Your task to perform on an android device: Add "lenovo thinkpad" to the cart on newegg.com Image 0: 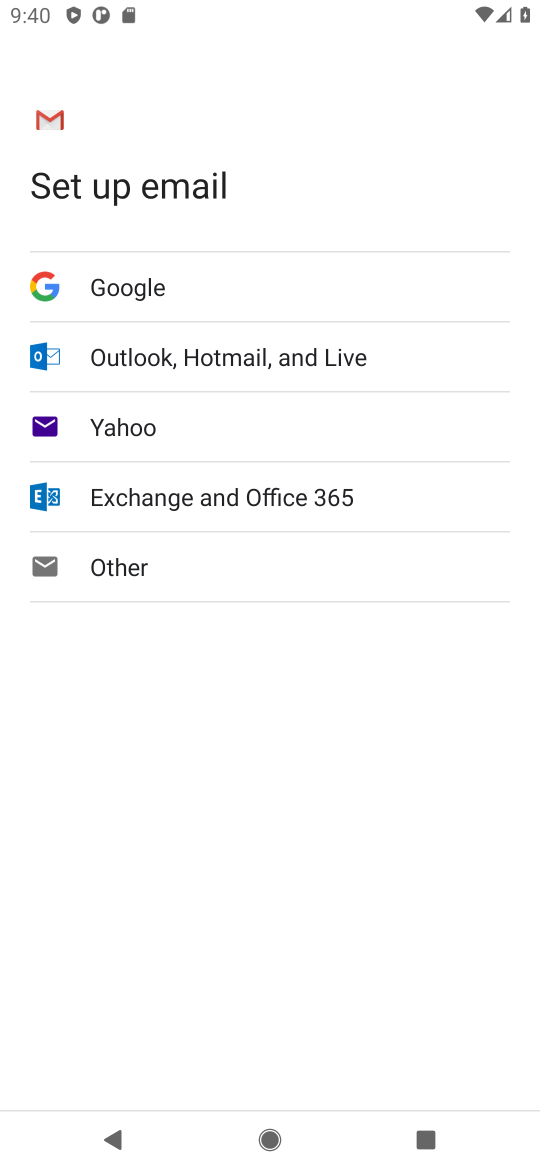
Step 0: press home button
Your task to perform on an android device: Add "lenovo thinkpad" to the cart on newegg.com Image 1: 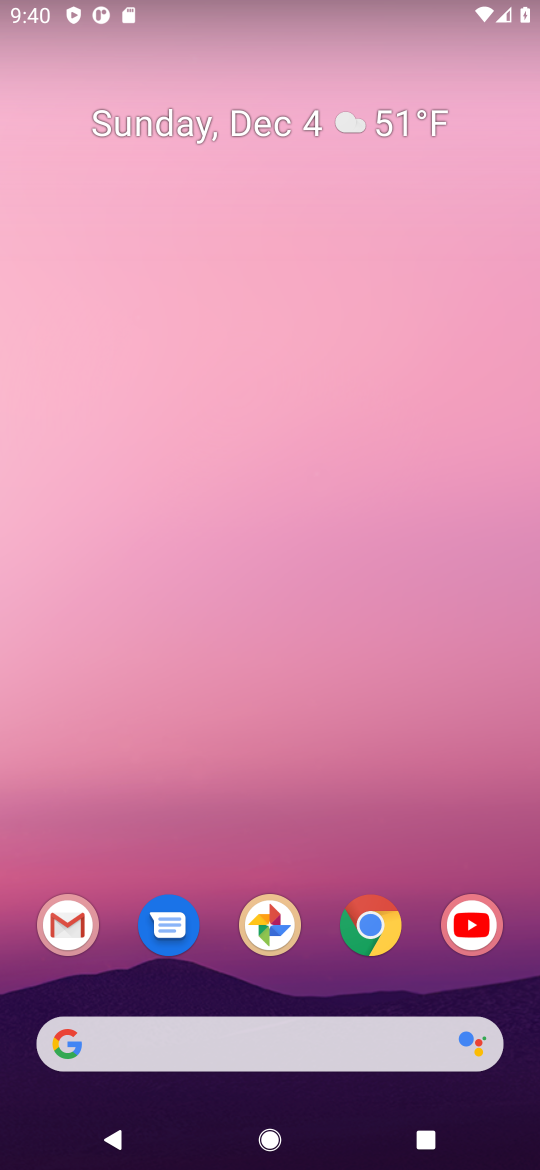
Step 1: drag from (198, 1058) to (203, 465)
Your task to perform on an android device: Add "lenovo thinkpad" to the cart on newegg.com Image 2: 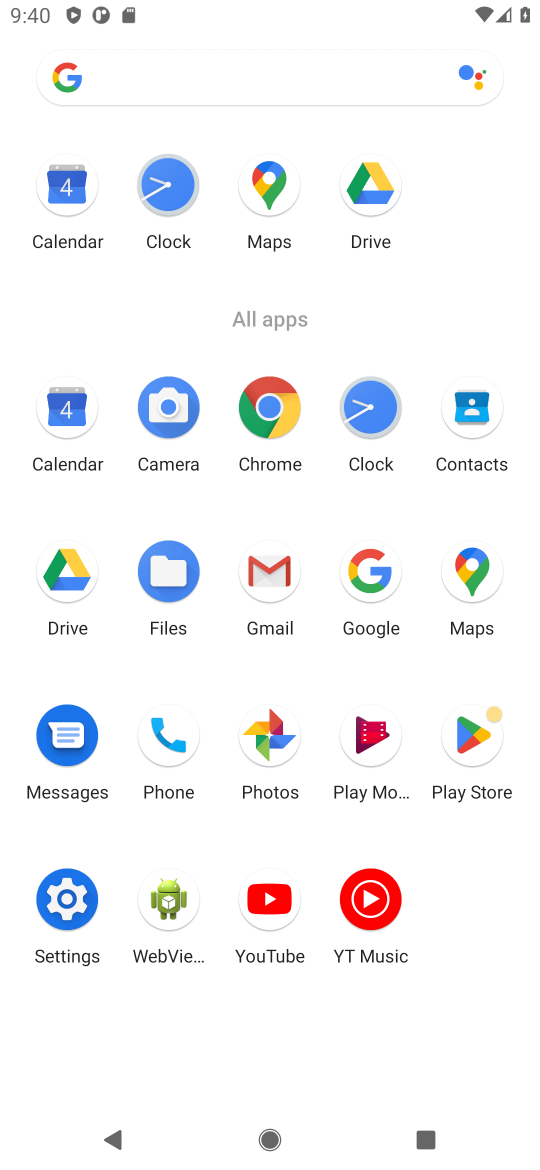
Step 2: click (375, 578)
Your task to perform on an android device: Add "lenovo thinkpad" to the cart on newegg.com Image 3: 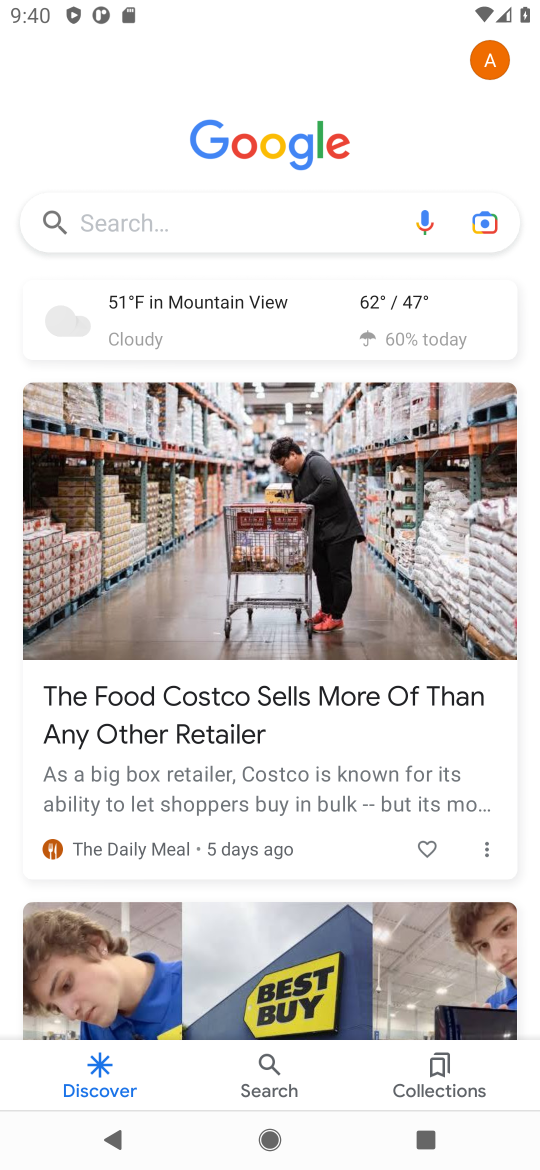
Step 3: click (171, 223)
Your task to perform on an android device: Add "lenovo thinkpad" to the cart on newegg.com Image 4: 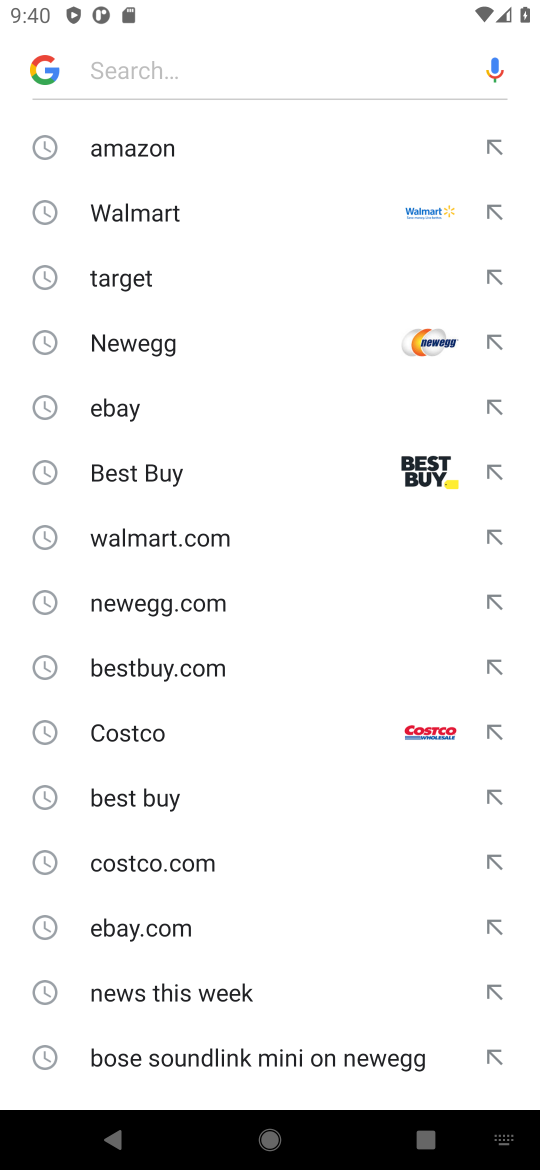
Step 4: click (158, 614)
Your task to perform on an android device: Add "lenovo thinkpad" to the cart on newegg.com Image 5: 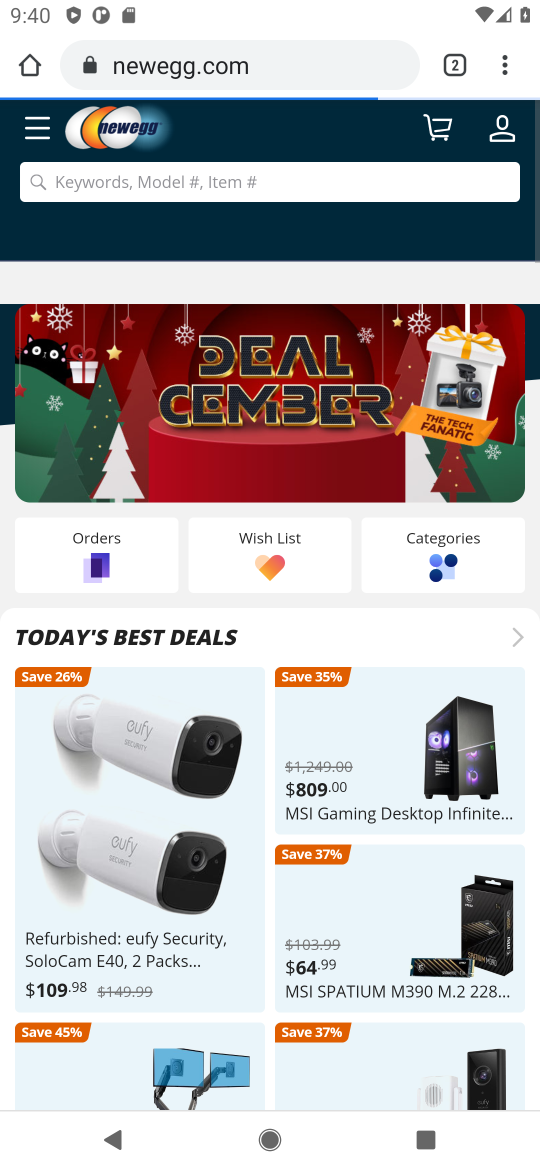
Step 5: click (203, 180)
Your task to perform on an android device: Add "lenovo thinkpad" to the cart on newegg.com Image 6: 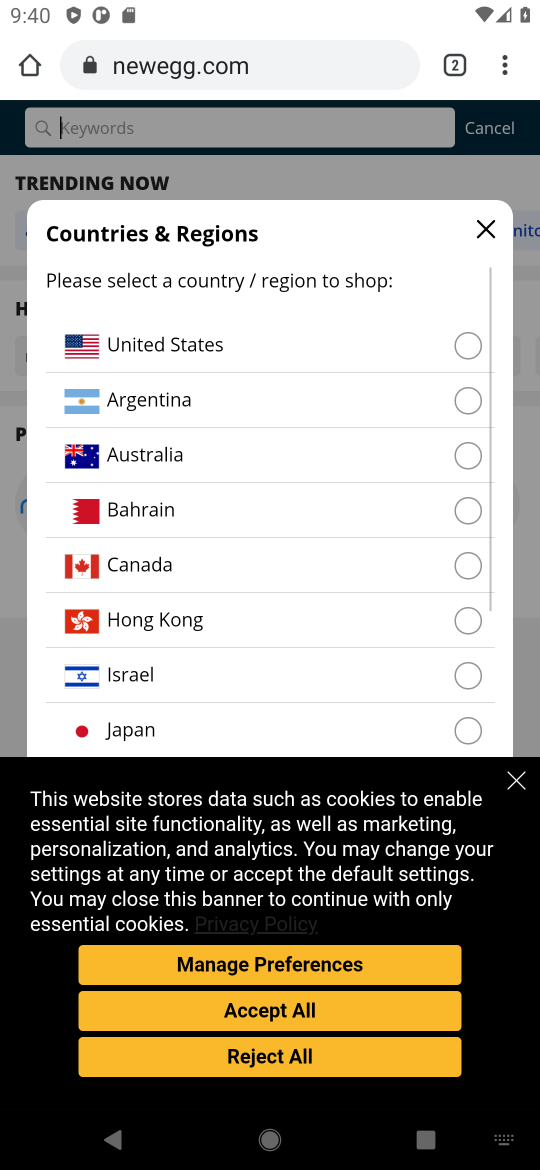
Step 6: click (485, 227)
Your task to perform on an android device: Add "lenovo thinkpad" to the cart on newegg.com Image 7: 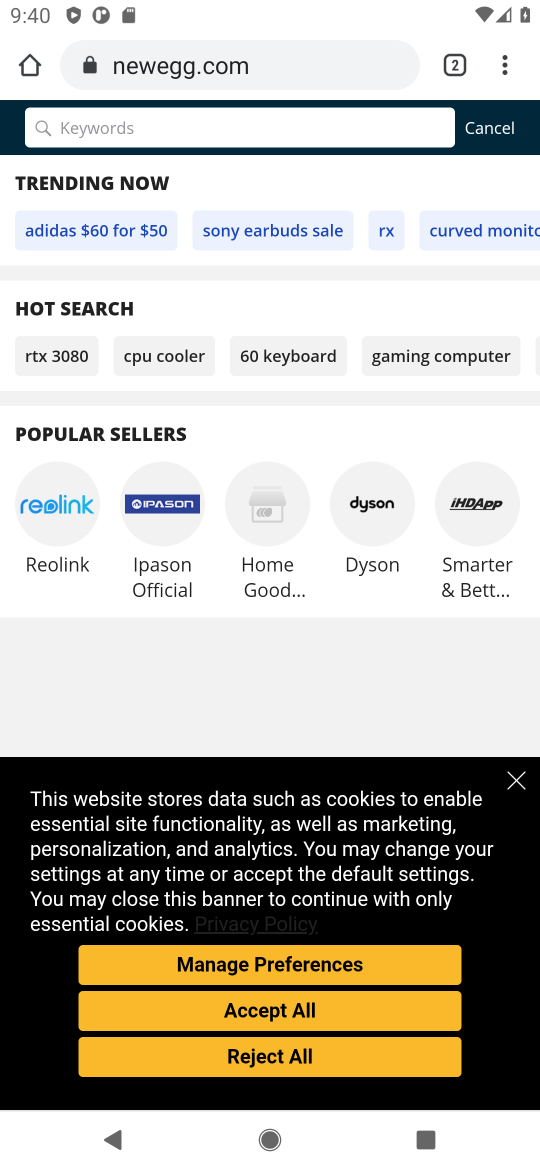
Step 7: type "lenovo thinkpad"
Your task to perform on an android device: Add "lenovo thinkpad" to the cart on newegg.com Image 8: 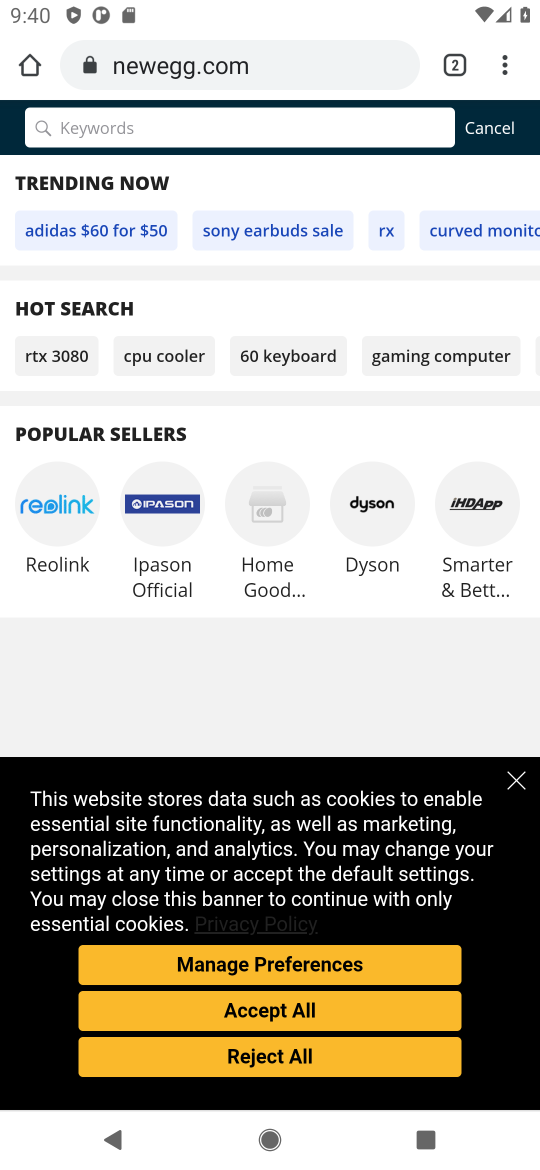
Step 8: click (508, 792)
Your task to perform on an android device: Add "lenovo thinkpad" to the cart on newegg.com Image 9: 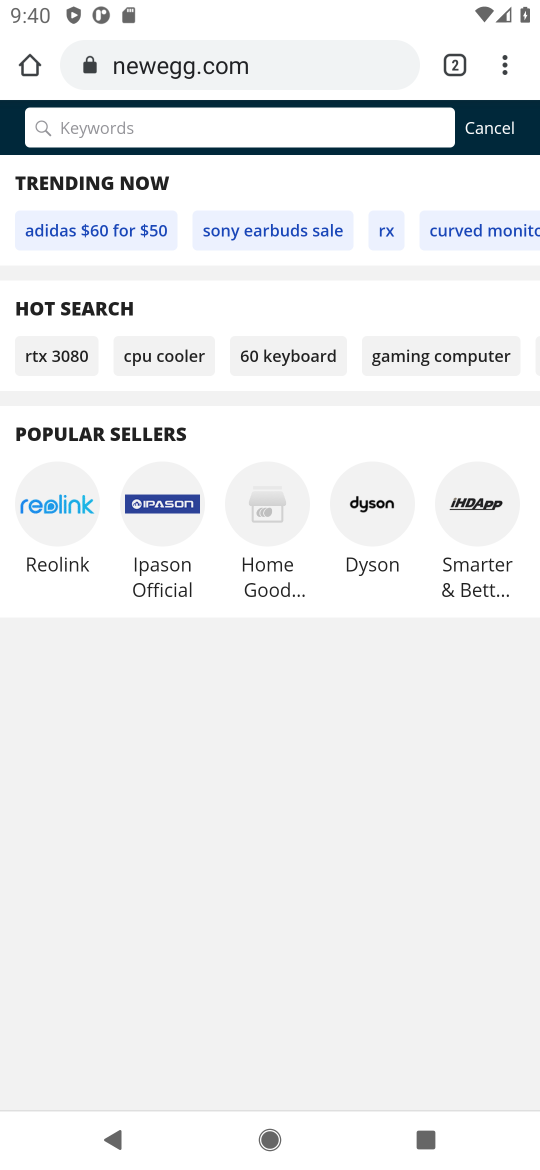
Step 9: click (308, 133)
Your task to perform on an android device: Add "lenovo thinkpad" to the cart on newegg.com Image 10: 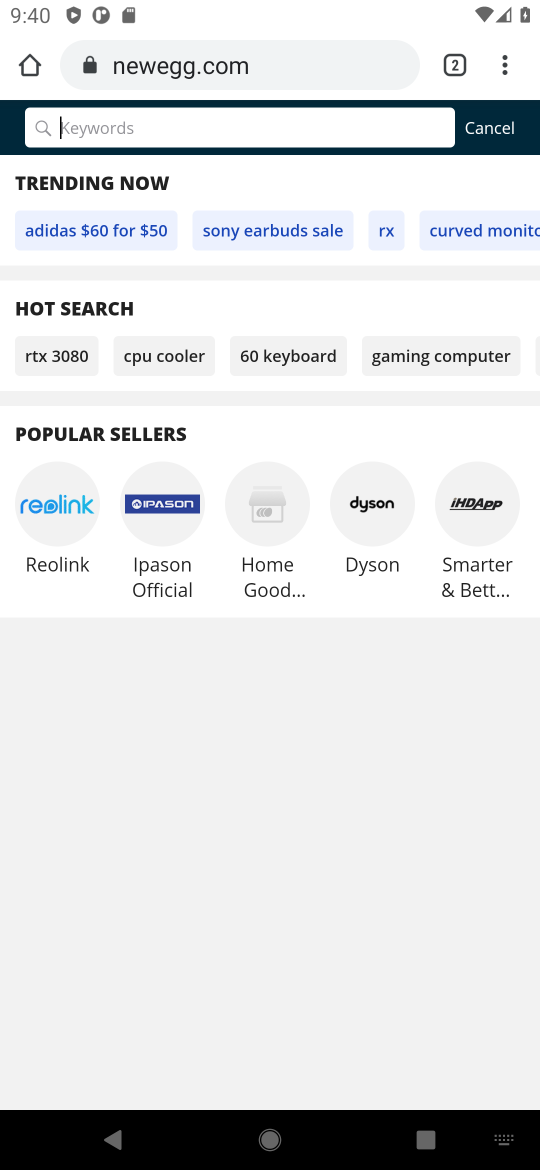
Step 10: type "lenovo thinkpad"
Your task to perform on an android device: Add "lenovo thinkpad" to the cart on newegg.com Image 11: 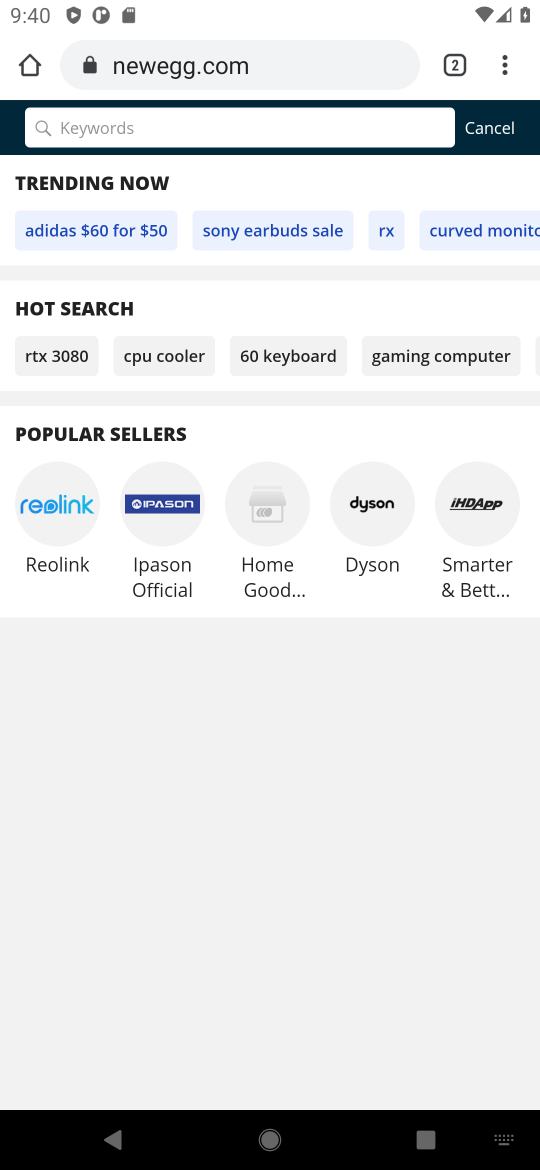
Step 11: click (41, 127)
Your task to perform on an android device: Add "lenovo thinkpad" to the cart on newegg.com Image 12: 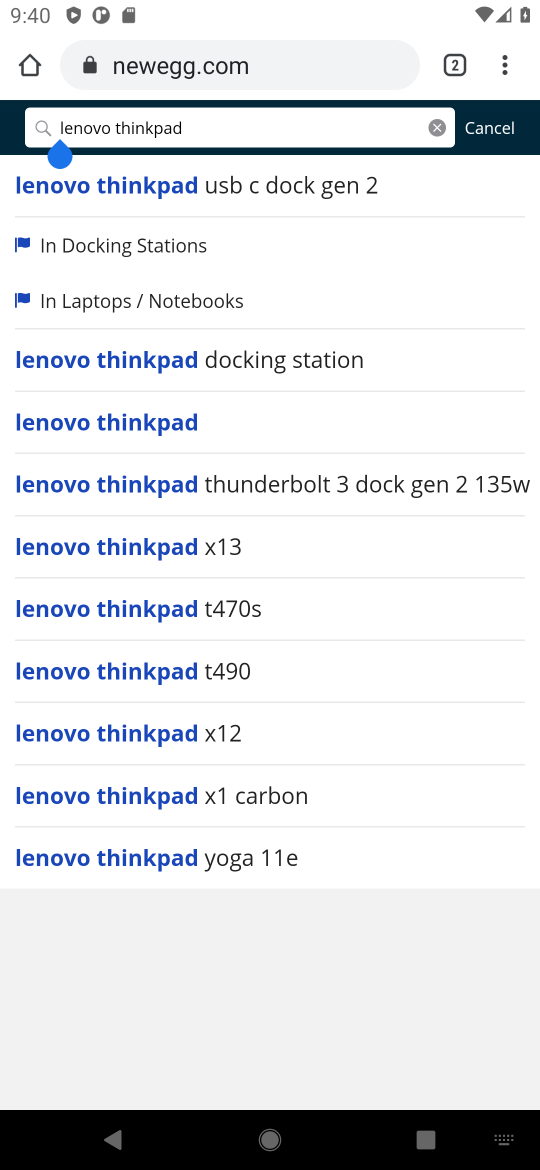
Step 12: click (98, 361)
Your task to perform on an android device: Add "lenovo thinkpad" to the cart on newegg.com Image 13: 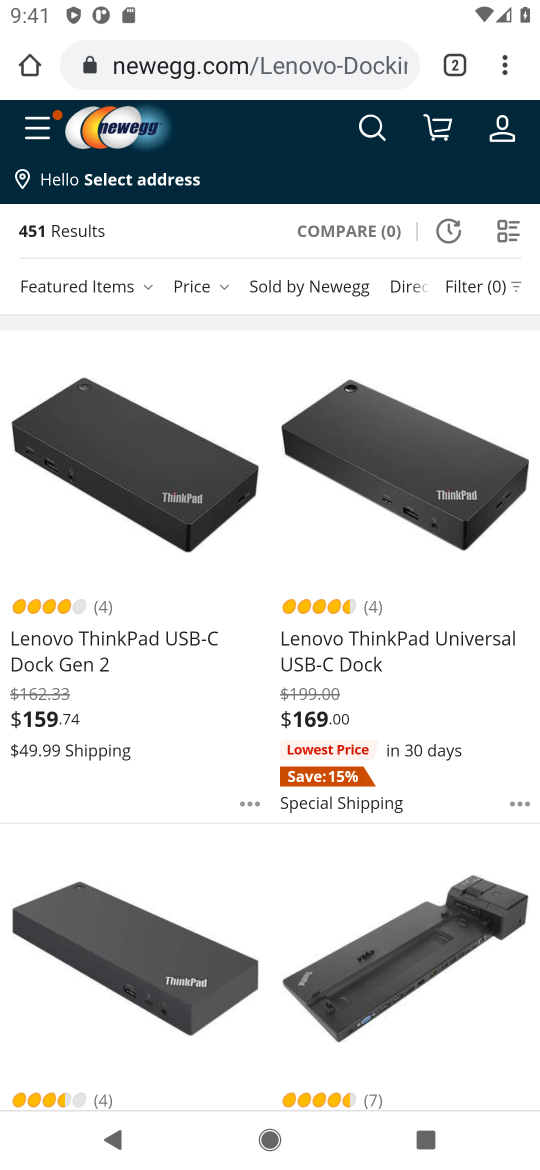
Step 13: click (104, 540)
Your task to perform on an android device: Add "lenovo thinkpad" to the cart on newegg.com Image 14: 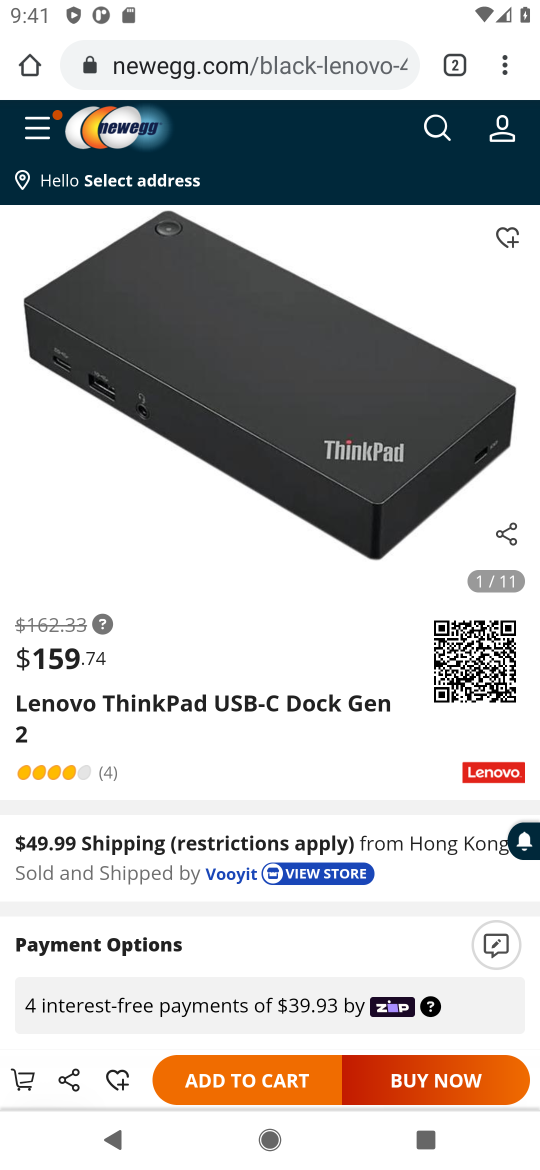
Step 14: click (265, 1089)
Your task to perform on an android device: Add "lenovo thinkpad" to the cart on newegg.com Image 15: 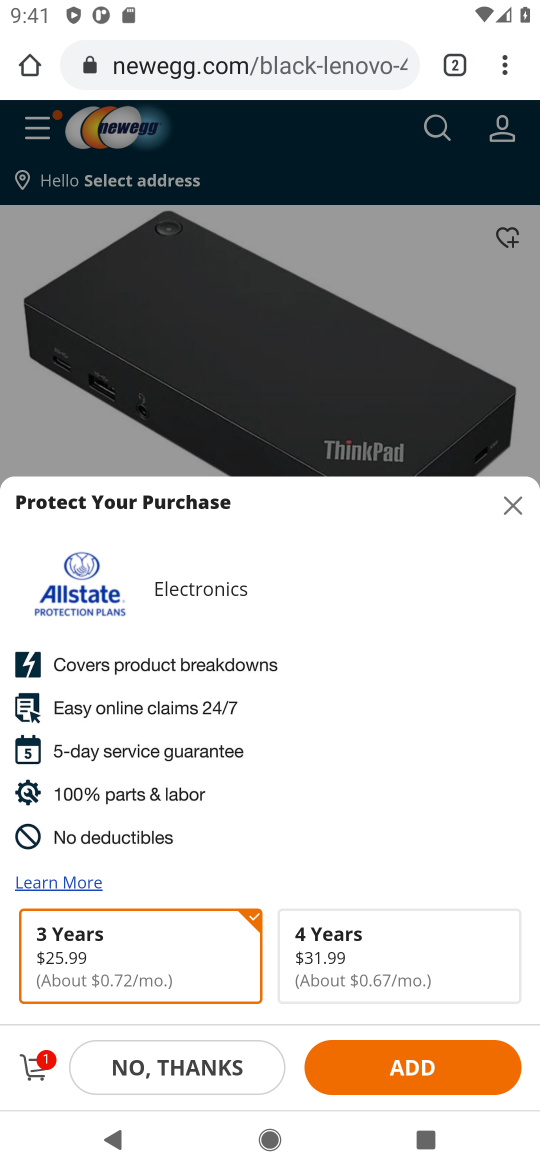
Step 15: task complete